Your task to perform on an android device: turn on the 12-hour format for clock Image 0: 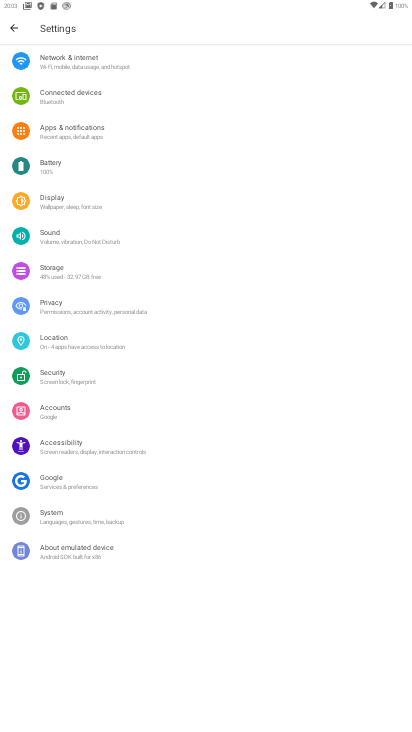
Step 0: click (10, 29)
Your task to perform on an android device: turn on the 12-hour format for clock Image 1: 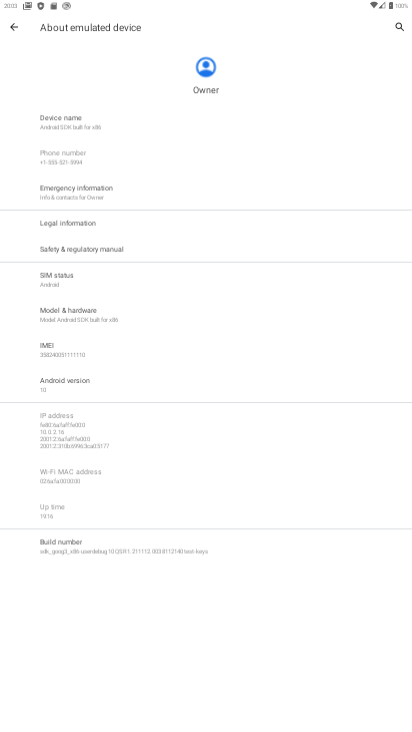
Step 1: press back button
Your task to perform on an android device: turn on the 12-hour format for clock Image 2: 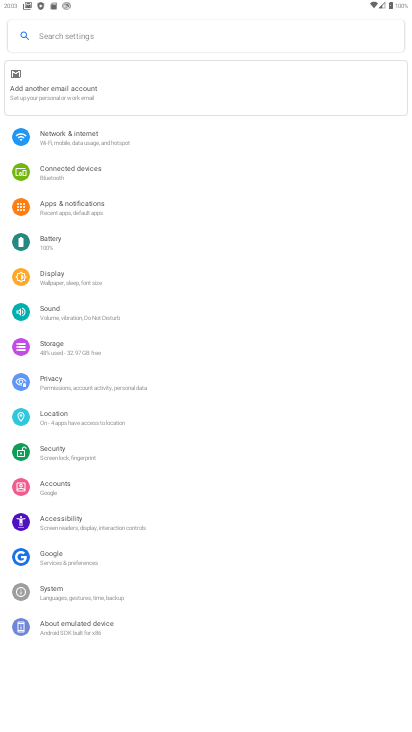
Step 2: press home button
Your task to perform on an android device: turn on the 12-hour format for clock Image 3: 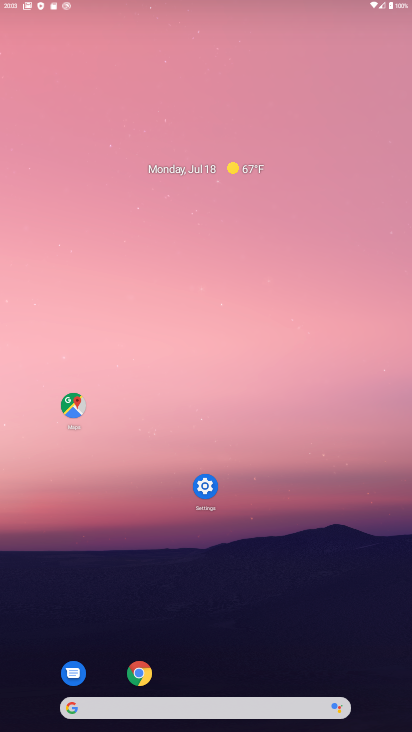
Step 3: drag from (259, 616) to (279, 32)
Your task to perform on an android device: turn on the 12-hour format for clock Image 4: 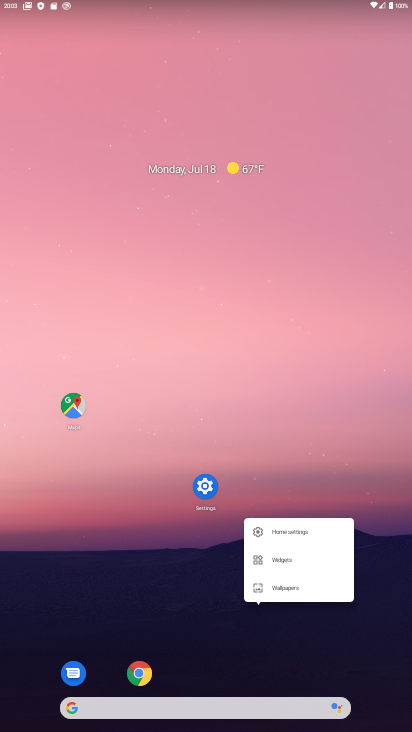
Step 4: drag from (156, 594) to (148, 149)
Your task to perform on an android device: turn on the 12-hour format for clock Image 5: 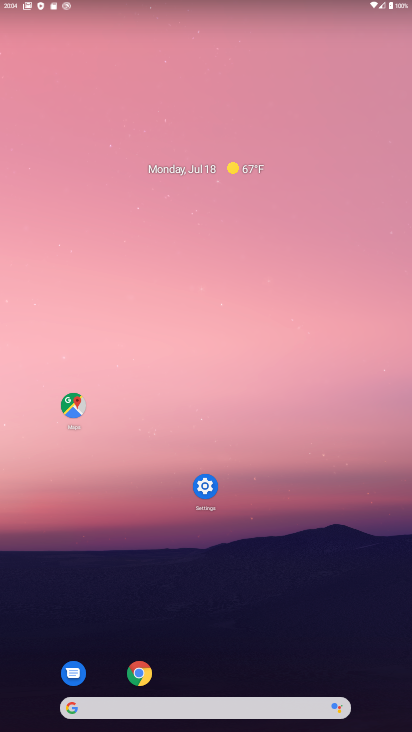
Step 5: drag from (243, 595) to (182, 183)
Your task to perform on an android device: turn on the 12-hour format for clock Image 6: 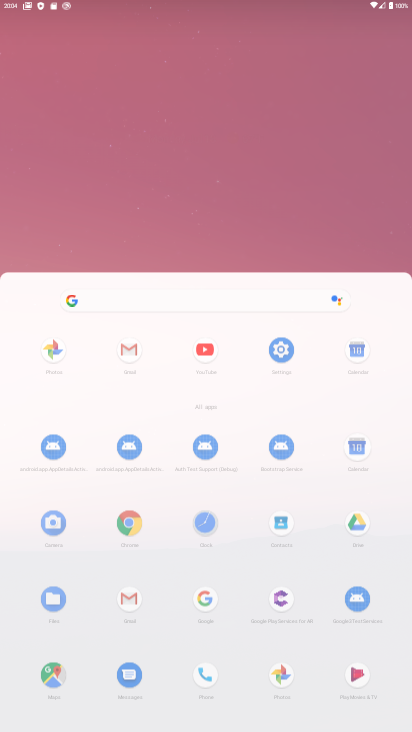
Step 6: drag from (192, 624) to (232, 114)
Your task to perform on an android device: turn on the 12-hour format for clock Image 7: 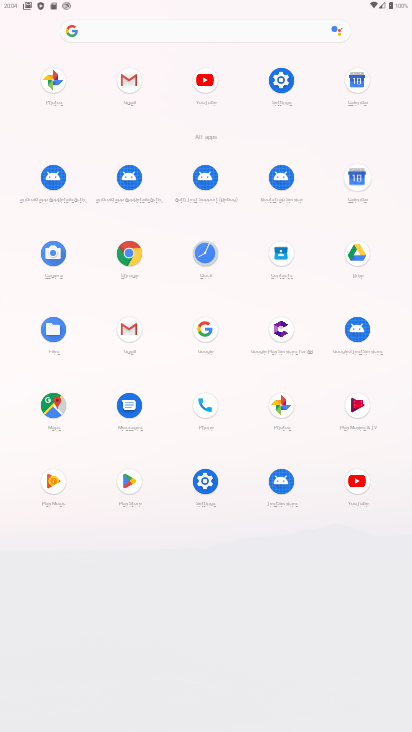
Step 7: drag from (222, 530) to (222, 133)
Your task to perform on an android device: turn on the 12-hour format for clock Image 8: 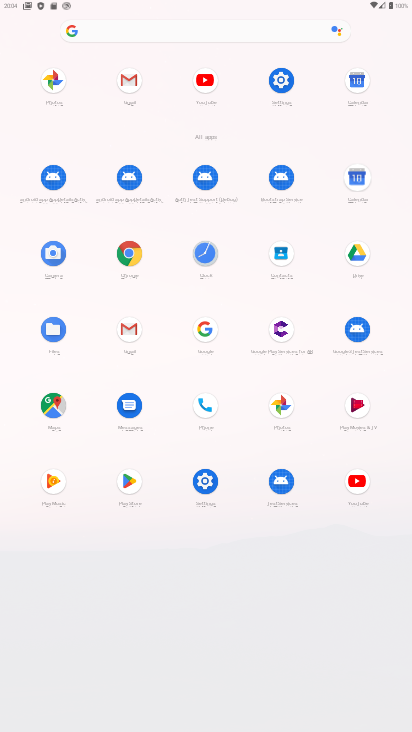
Step 8: click (197, 253)
Your task to perform on an android device: turn on the 12-hour format for clock Image 9: 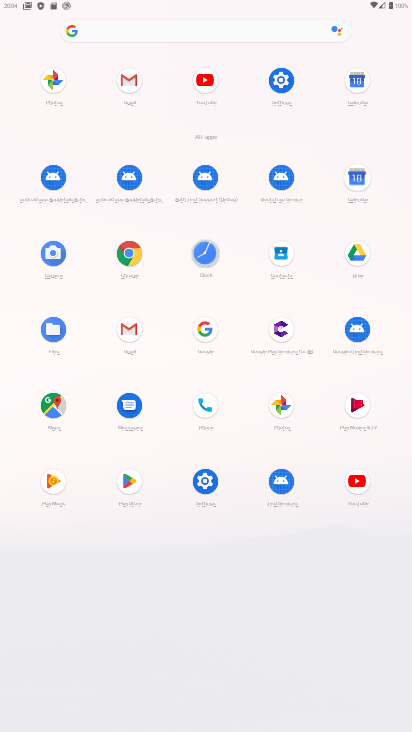
Step 9: click (201, 253)
Your task to perform on an android device: turn on the 12-hour format for clock Image 10: 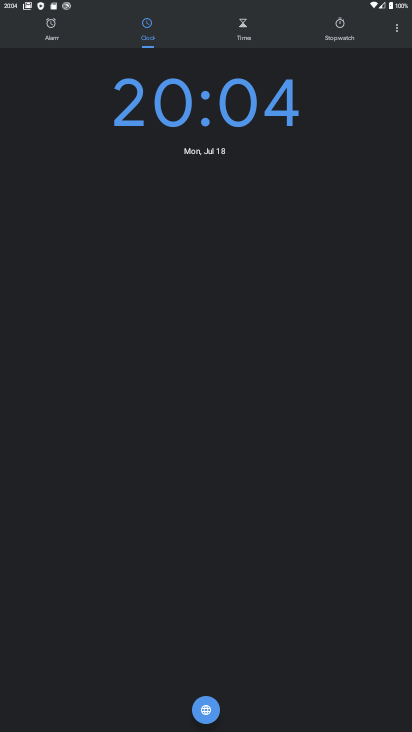
Step 10: click (205, 258)
Your task to perform on an android device: turn on the 12-hour format for clock Image 11: 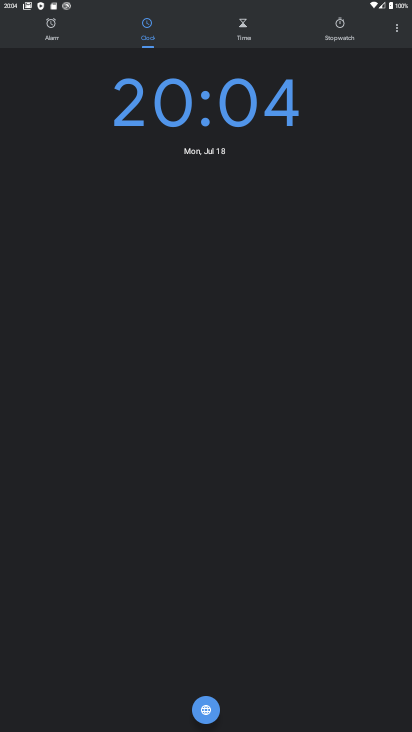
Step 11: drag from (400, 28) to (240, 238)
Your task to perform on an android device: turn on the 12-hour format for clock Image 12: 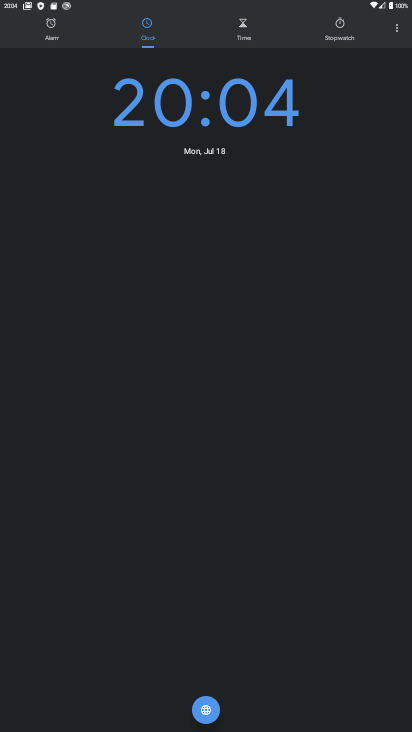
Step 12: click (322, 52)
Your task to perform on an android device: turn on the 12-hour format for clock Image 13: 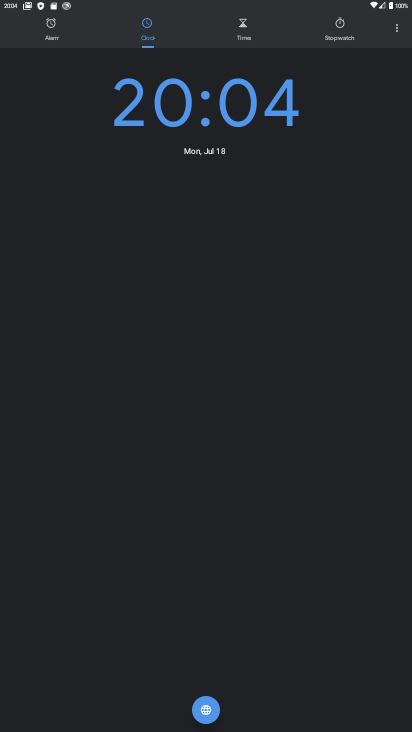
Step 13: click (322, 51)
Your task to perform on an android device: turn on the 12-hour format for clock Image 14: 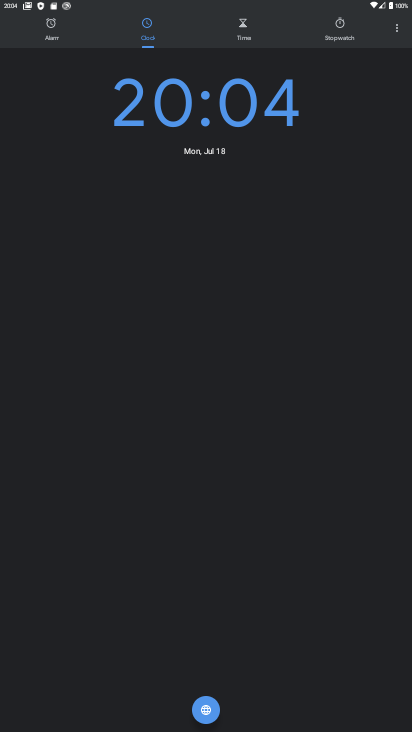
Step 14: click (400, 31)
Your task to perform on an android device: turn on the 12-hour format for clock Image 15: 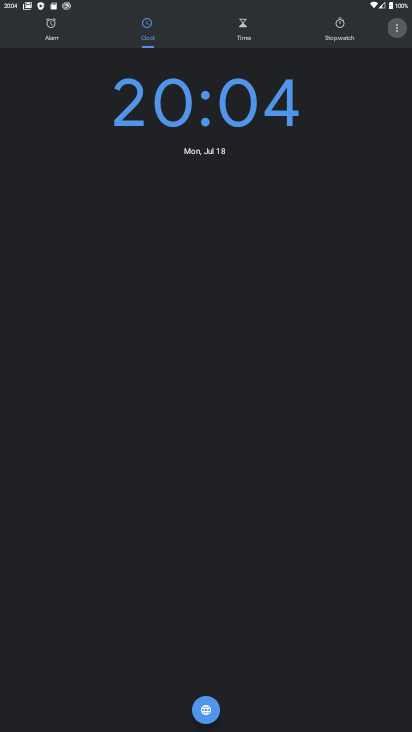
Step 15: click (401, 31)
Your task to perform on an android device: turn on the 12-hour format for clock Image 16: 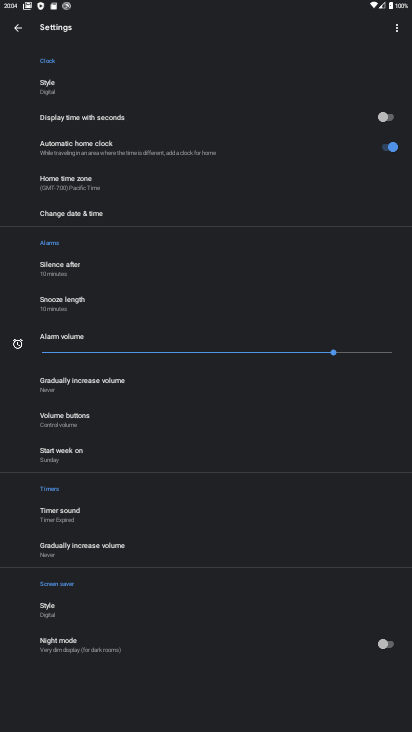
Step 16: click (332, 54)
Your task to perform on an android device: turn on the 12-hour format for clock Image 17: 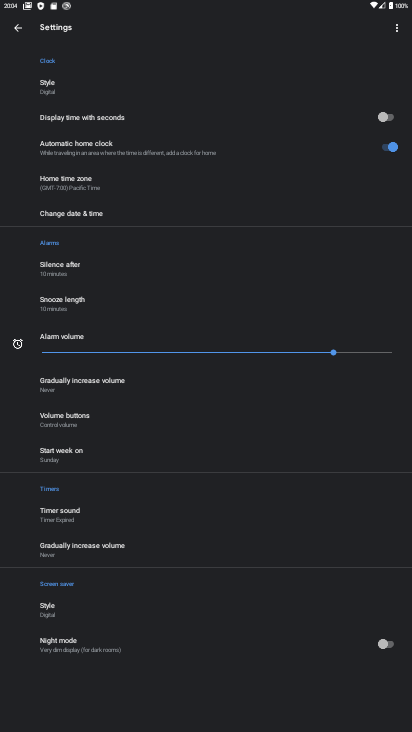
Step 17: click (75, 212)
Your task to perform on an android device: turn on the 12-hour format for clock Image 18: 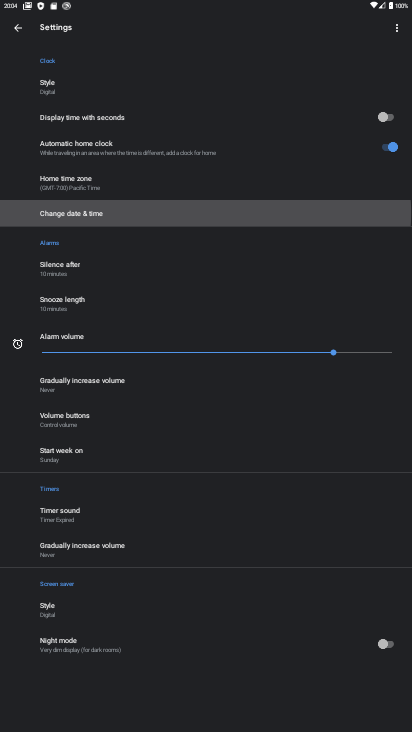
Step 18: click (75, 212)
Your task to perform on an android device: turn on the 12-hour format for clock Image 19: 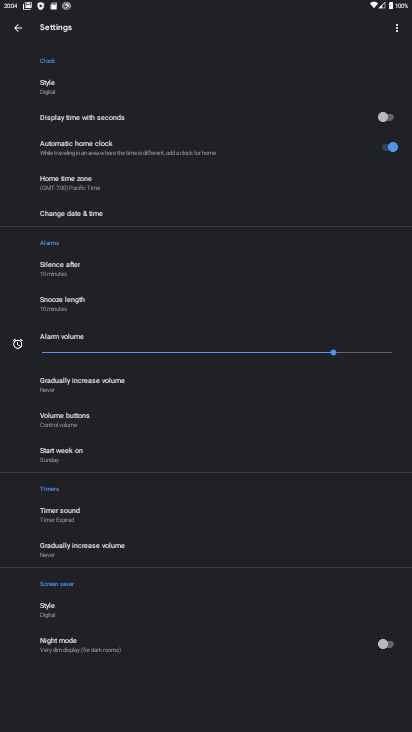
Step 19: click (74, 213)
Your task to perform on an android device: turn on the 12-hour format for clock Image 20: 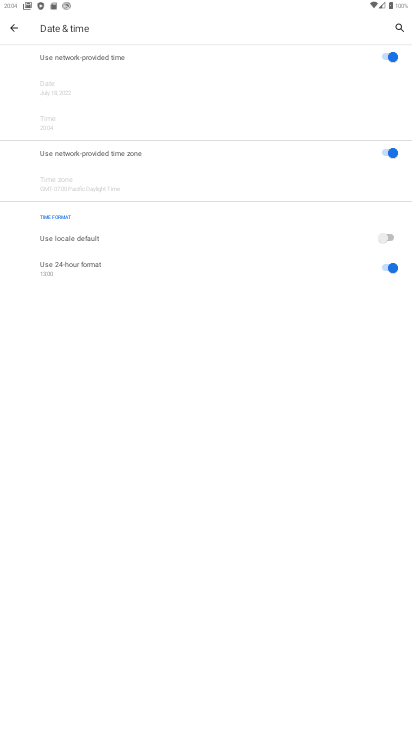
Step 20: click (389, 240)
Your task to perform on an android device: turn on the 12-hour format for clock Image 21: 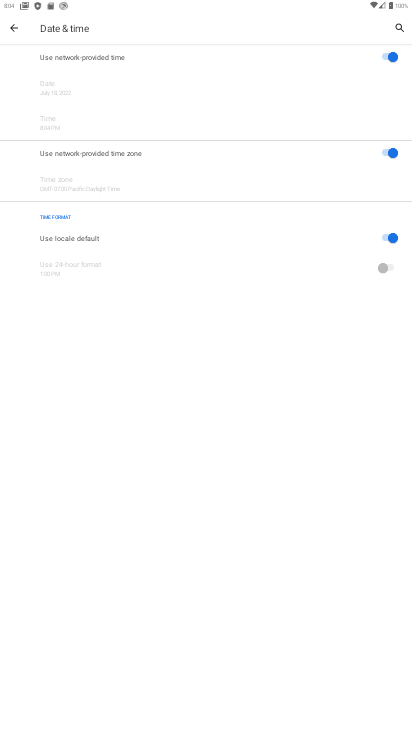
Step 21: task complete